Your task to perform on an android device: Search for pizza restaurants on Maps Image 0: 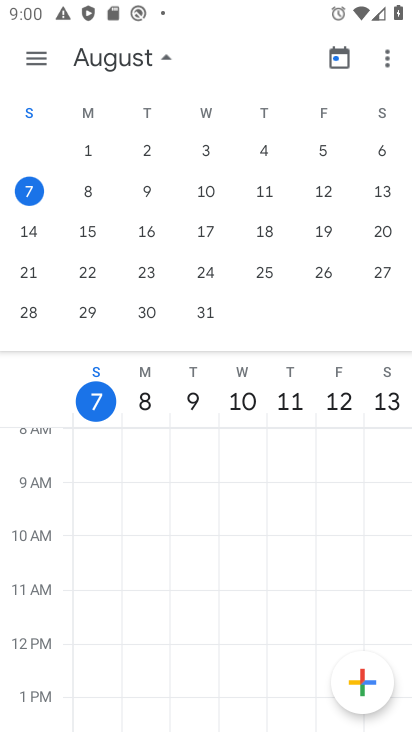
Step 0: press home button
Your task to perform on an android device: Search for pizza restaurants on Maps Image 1: 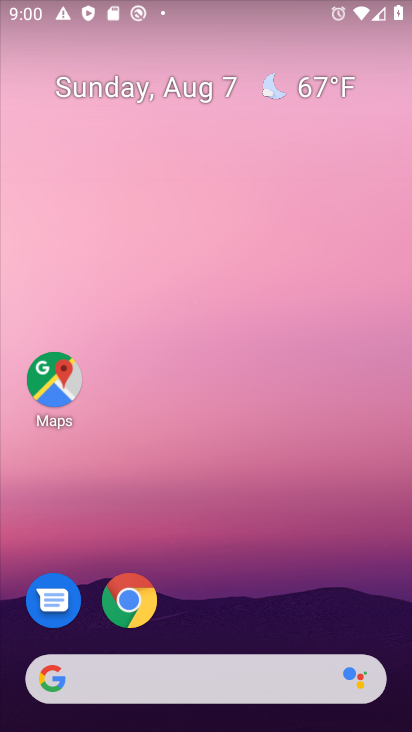
Step 1: drag from (197, 523) to (194, 17)
Your task to perform on an android device: Search for pizza restaurants on Maps Image 2: 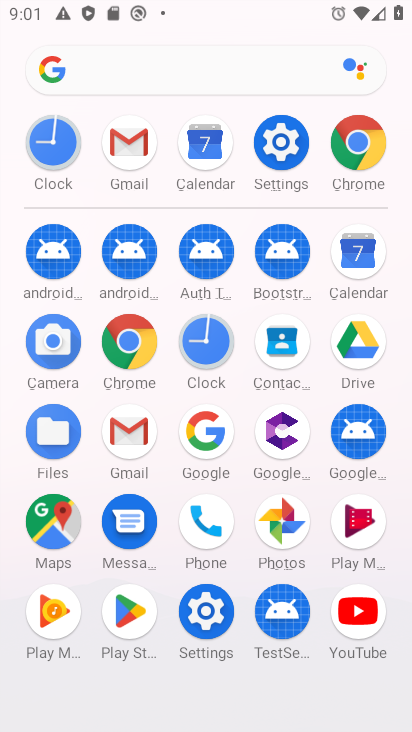
Step 2: click (131, 132)
Your task to perform on an android device: Search for pizza restaurants on Maps Image 3: 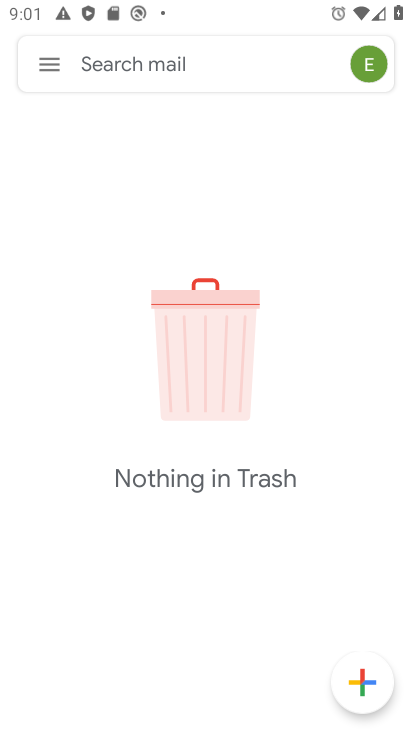
Step 3: press back button
Your task to perform on an android device: Search for pizza restaurants on Maps Image 4: 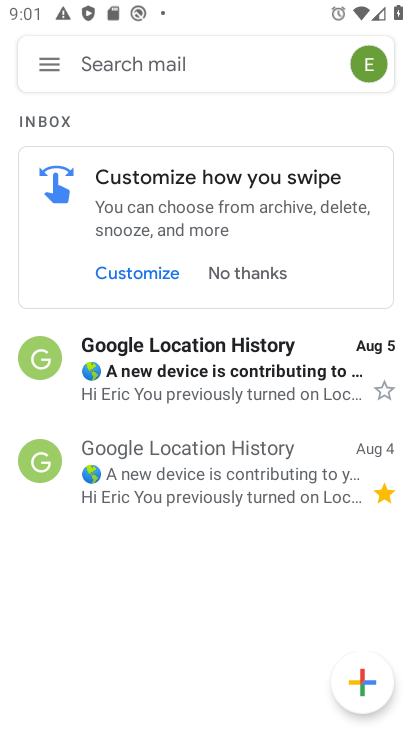
Step 4: press back button
Your task to perform on an android device: Search for pizza restaurants on Maps Image 5: 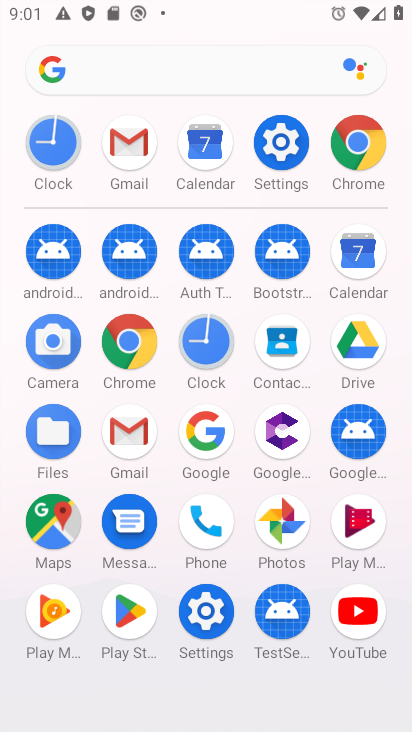
Step 5: click (53, 537)
Your task to perform on an android device: Search for pizza restaurants on Maps Image 6: 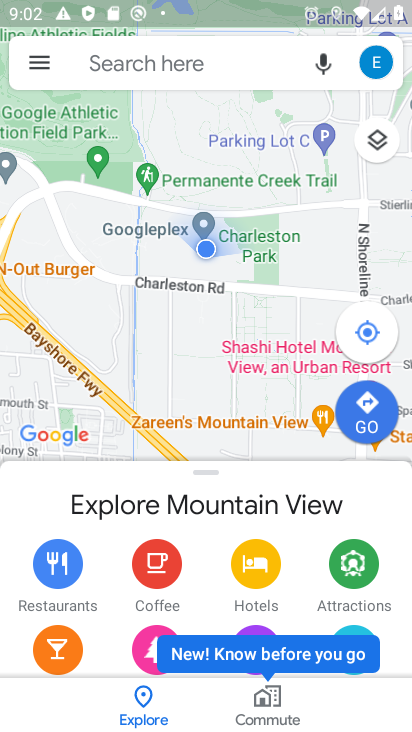
Step 6: click (159, 59)
Your task to perform on an android device: Search for pizza restaurants on Maps Image 7: 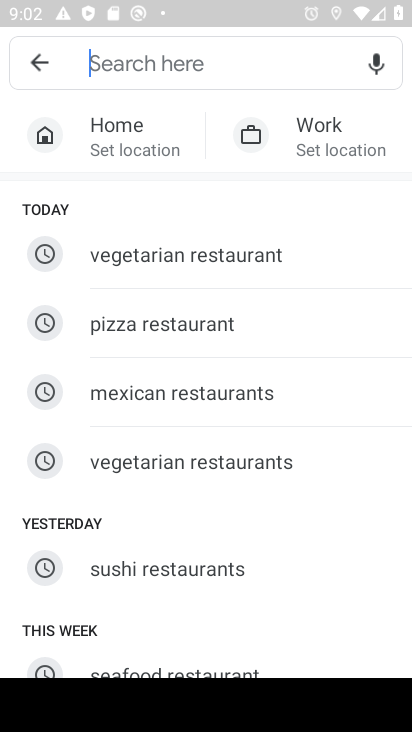
Step 7: type "pizza restaurants "
Your task to perform on an android device: Search for pizza restaurants on Maps Image 8: 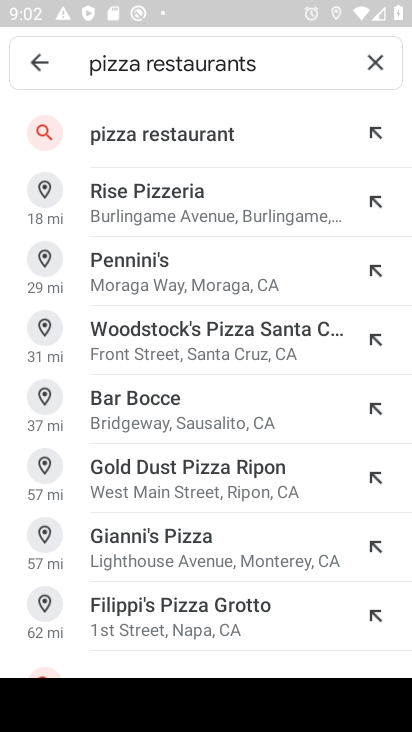
Step 8: click (180, 139)
Your task to perform on an android device: Search for pizza restaurants on Maps Image 9: 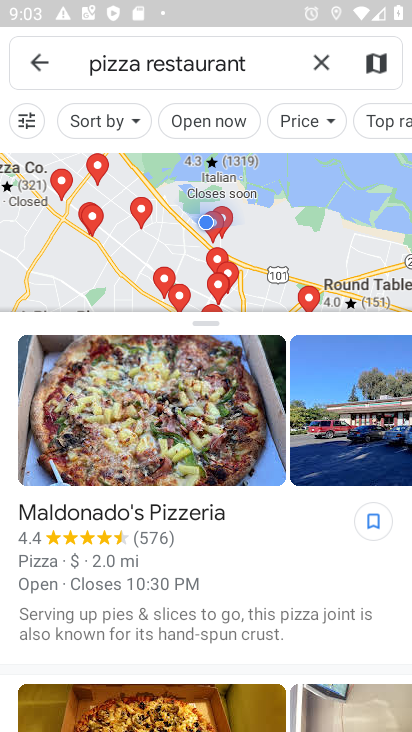
Step 9: task complete